Your task to perform on an android device: toggle data saver in the chrome app Image 0: 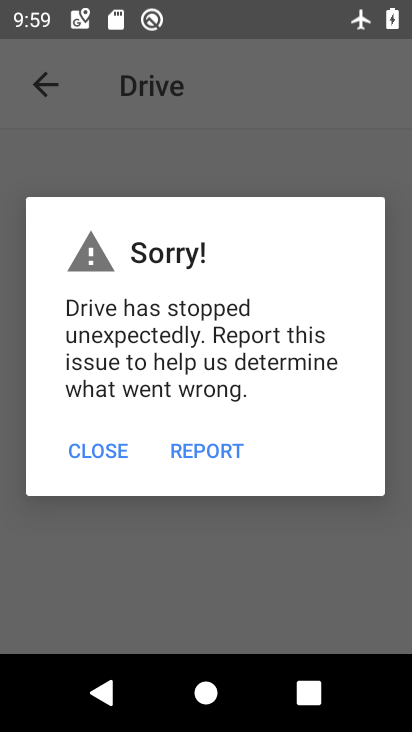
Step 0: press home button
Your task to perform on an android device: toggle data saver in the chrome app Image 1: 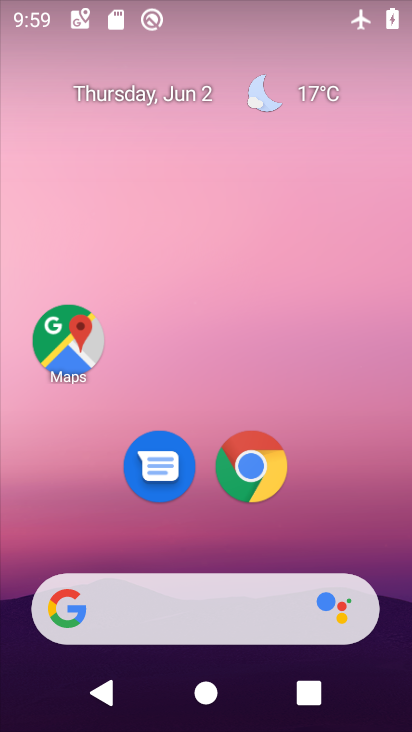
Step 1: click (254, 464)
Your task to perform on an android device: toggle data saver in the chrome app Image 2: 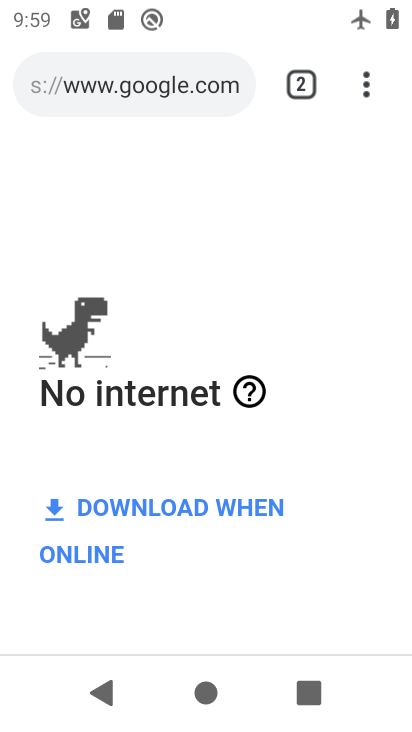
Step 2: click (382, 79)
Your task to perform on an android device: toggle data saver in the chrome app Image 3: 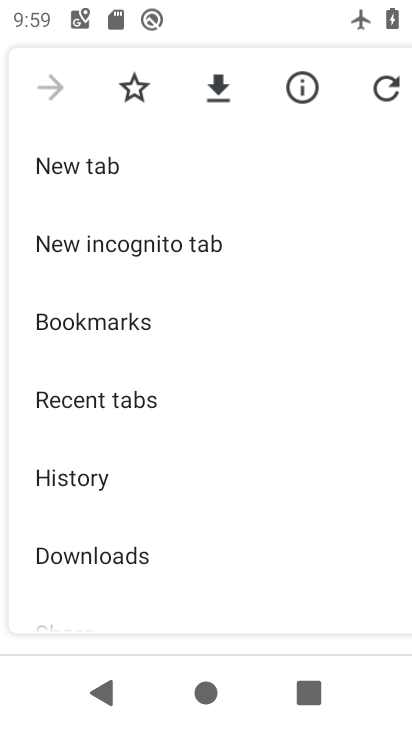
Step 3: drag from (133, 565) to (174, 208)
Your task to perform on an android device: toggle data saver in the chrome app Image 4: 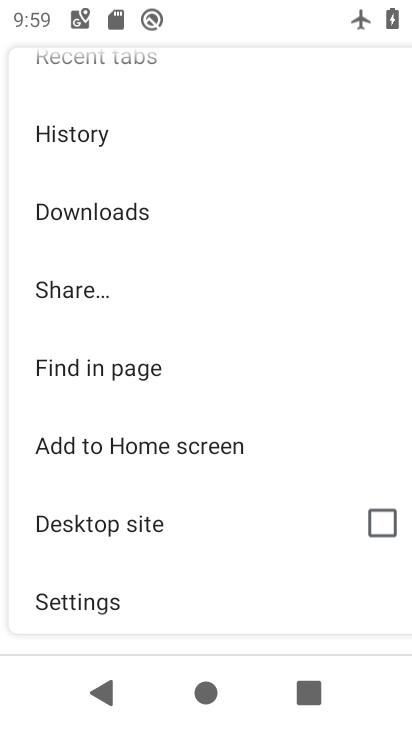
Step 4: click (104, 601)
Your task to perform on an android device: toggle data saver in the chrome app Image 5: 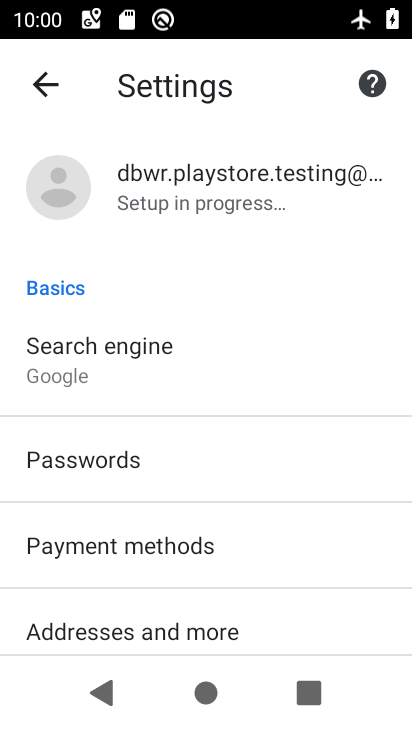
Step 5: drag from (231, 531) to (254, 210)
Your task to perform on an android device: toggle data saver in the chrome app Image 6: 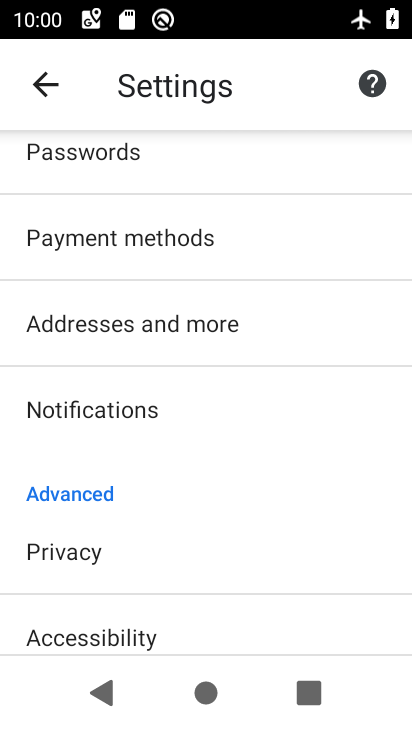
Step 6: drag from (192, 484) to (214, 276)
Your task to perform on an android device: toggle data saver in the chrome app Image 7: 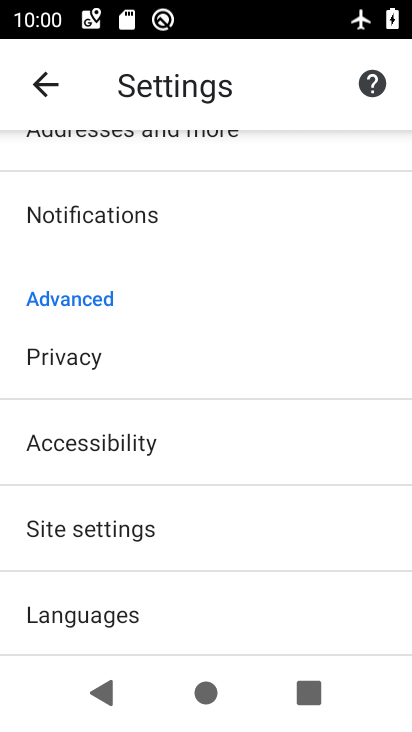
Step 7: drag from (150, 572) to (174, 459)
Your task to perform on an android device: toggle data saver in the chrome app Image 8: 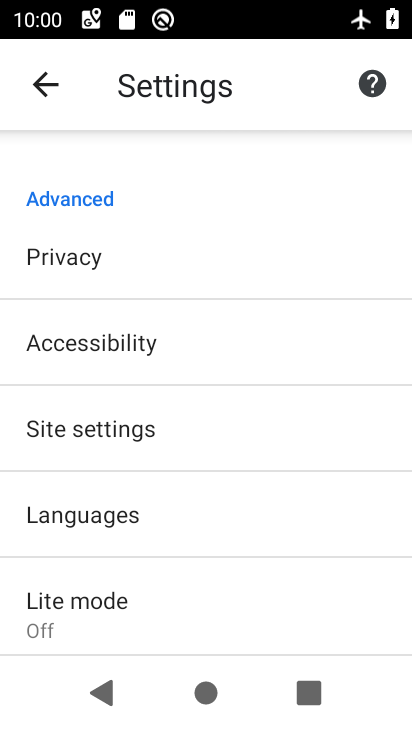
Step 8: click (108, 596)
Your task to perform on an android device: toggle data saver in the chrome app Image 9: 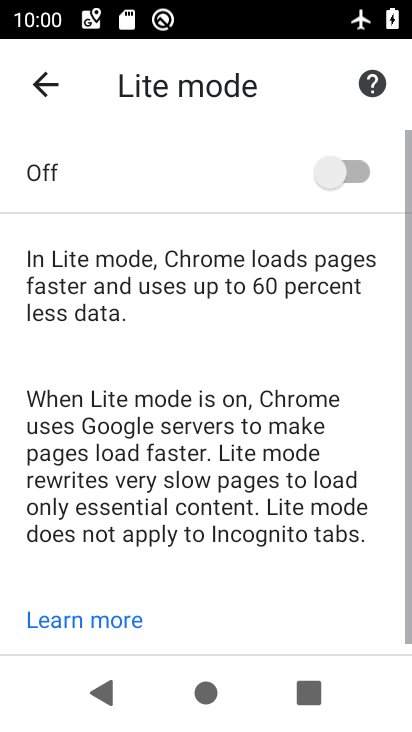
Step 9: drag from (116, 605) to (182, 308)
Your task to perform on an android device: toggle data saver in the chrome app Image 10: 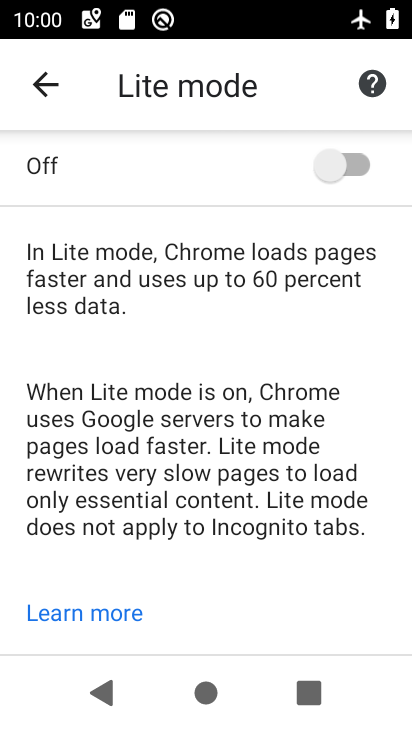
Step 10: click (80, 72)
Your task to perform on an android device: toggle data saver in the chrome app Image 11: 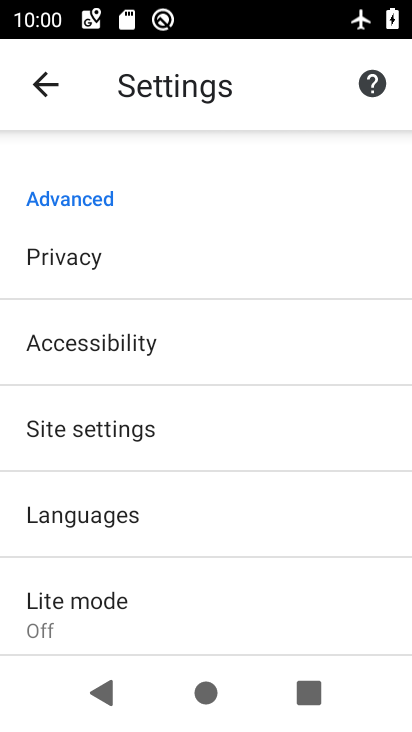
Step 11: click (125, 435)
Your task to perform on an android device: toggle data saver in the chrome app Image 12: 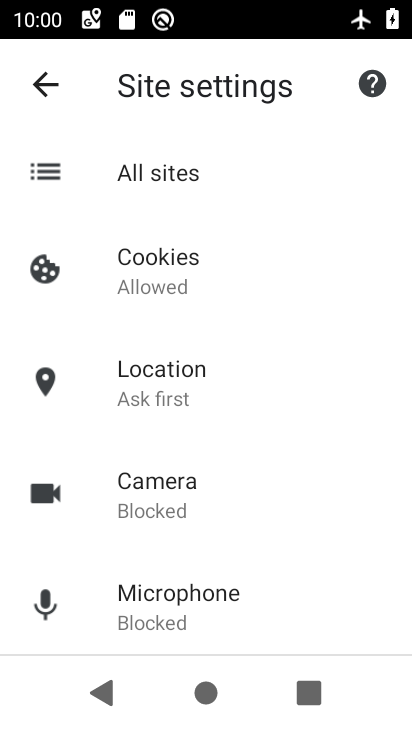
Step 12: drag from (207, 518) to (261, 195)
Your task to perform on an android device: toggle data saver in the chrome app Image 13: 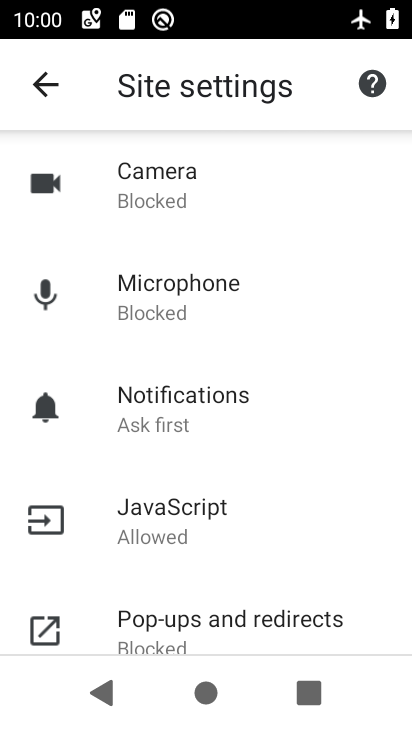
Step 13: click (44, 80)
Your task to perform on an android device: toggle data saver in the chrome app Image 14: 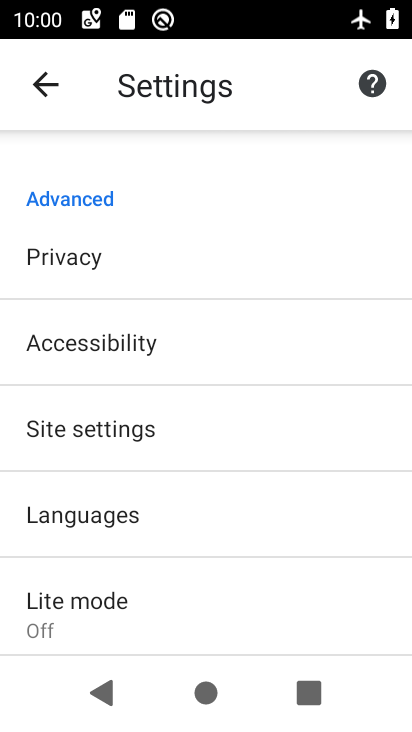
Step 14: click (105, 589)
Your task to perform on an android device: toggle data saver in the chrome app Image 15: 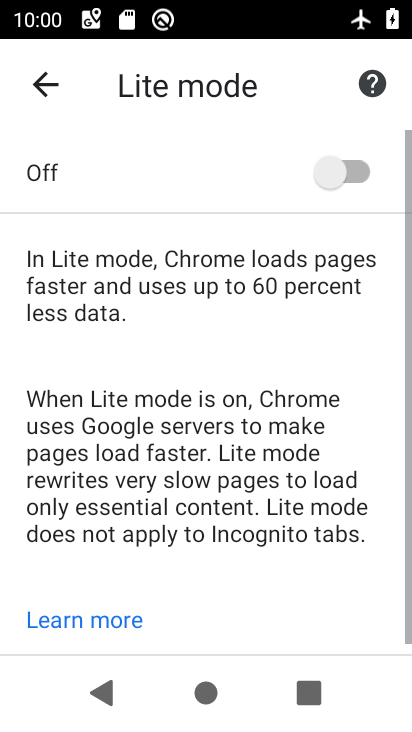
Step 15: click (329, 168)
Your task to perform on an android device: toggle data saver in the chrome app Image 16: 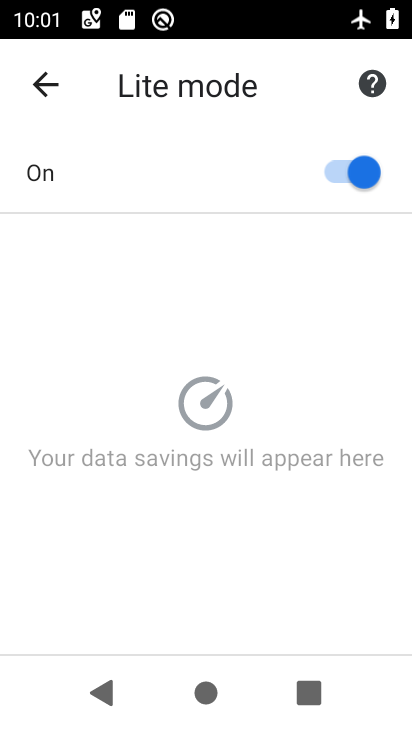
Step 16: task complete